Your task to perform on an android device: Search for Mexican restaurants on Maps Image 0: 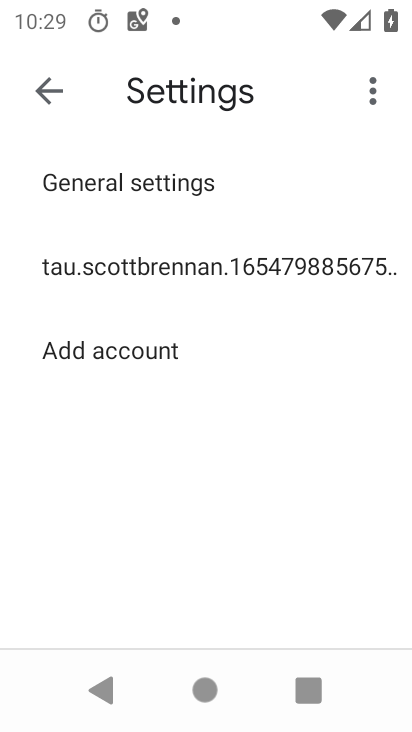
Step 0: press back button
Your task to perform on an android device: Search for Mexican restaurants on Maps Image 1: 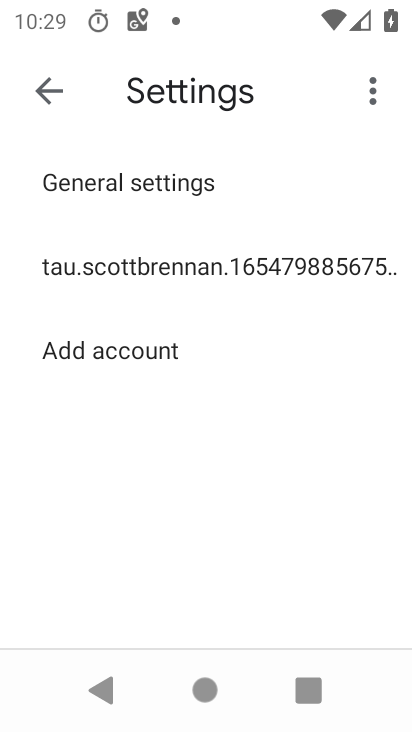
Step 1: press back button
Your task to perform on an android device: Search for Mexican restaurants on Maps Image 2: 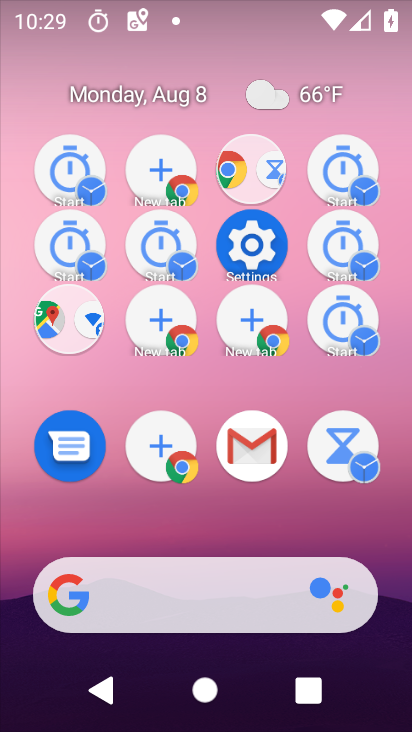
Step 2: drag from (283, 635) to (291, 251)
Your task to perform on an android device: Search for Mexican restaurants on Maps Image 3: 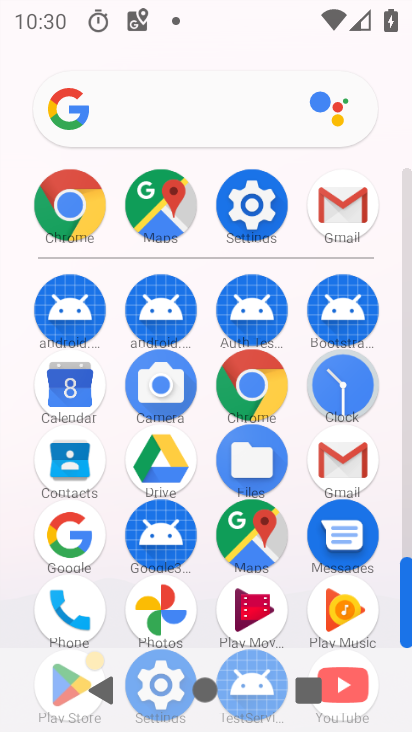
Step 3: click (247, 539)
Your task to perform on an android device: Search for Mexican restaurants on Maps Image 4: 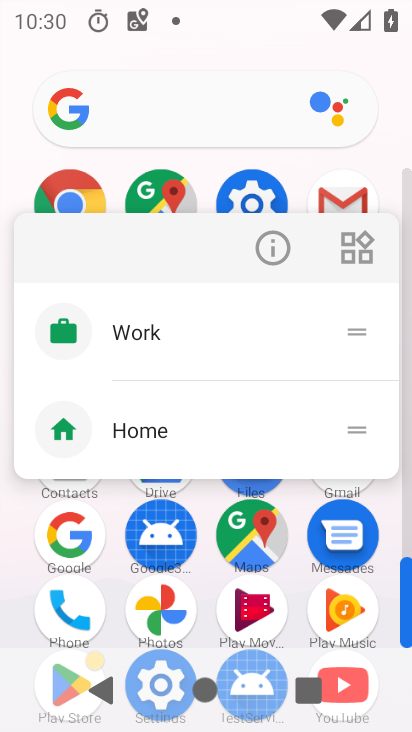
Step 4: click (151, 340)
Your task to perform on an android device: Search for Mexican restaurants on Maps Image 5: 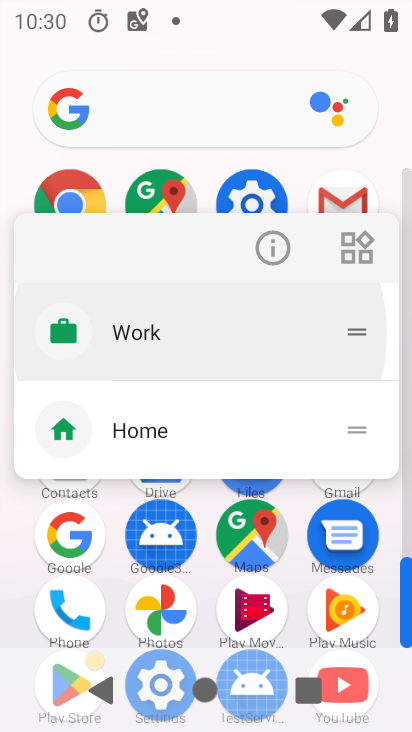
Step 5: click (149, 340)
Your task to perform on an android device: Search for Mexican restaurants on Maps Image 6: 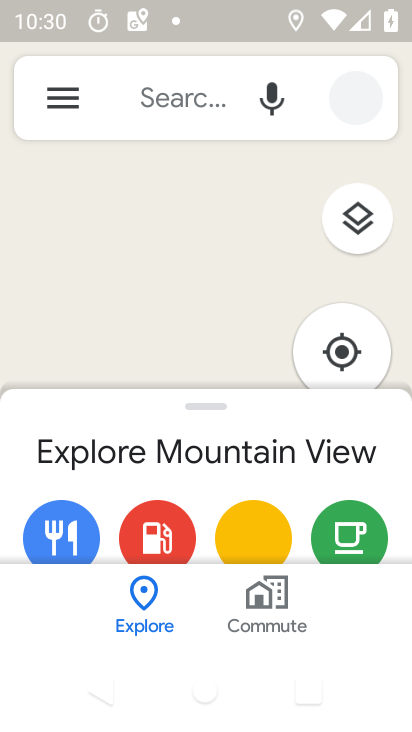
Step 6: click (155, 89)
Your task to perform on an android device: Search for Mexican restaurants on Maps Image 7: 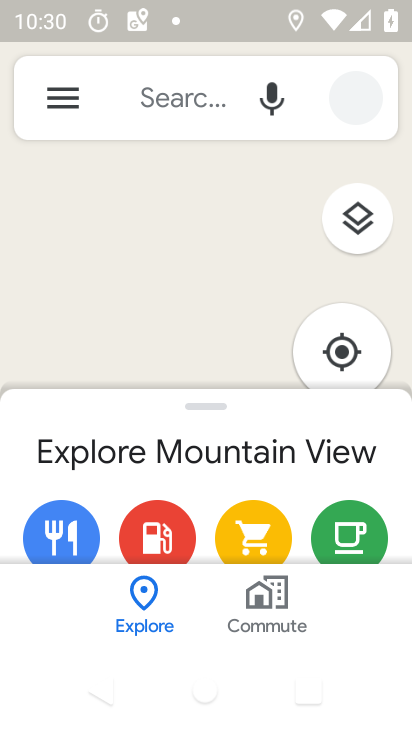
Step 7: click (152, 91)
Your task to perform on an android device: Search for Mexican restaurants on Maps Image 8: 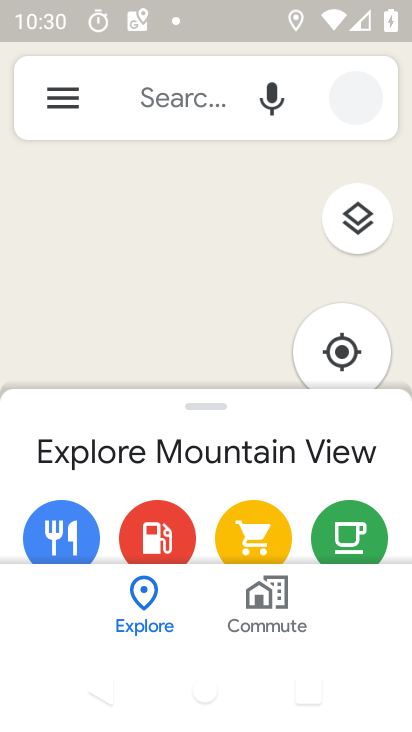
Step 8: click (152, 93)
Your task to perform on an android device: Search for Mexican restaurants on Maps Image 9: 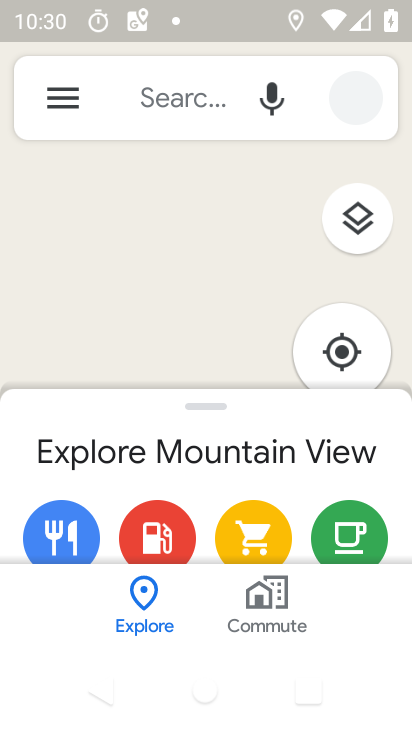
Step 9: click (152, 93)
Your task to perform on an android device: Search for Mexican restaurants on Maps Image 10: 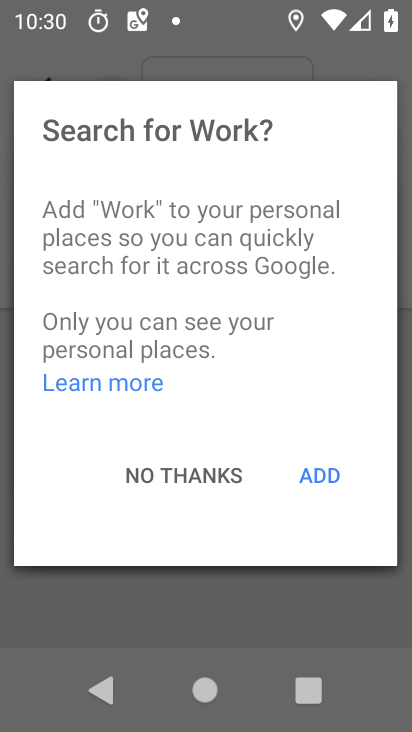
Step 10: click (201, 472)
Your task to perform on an android device: Search for Mexican restaurants on Maps Image 11: 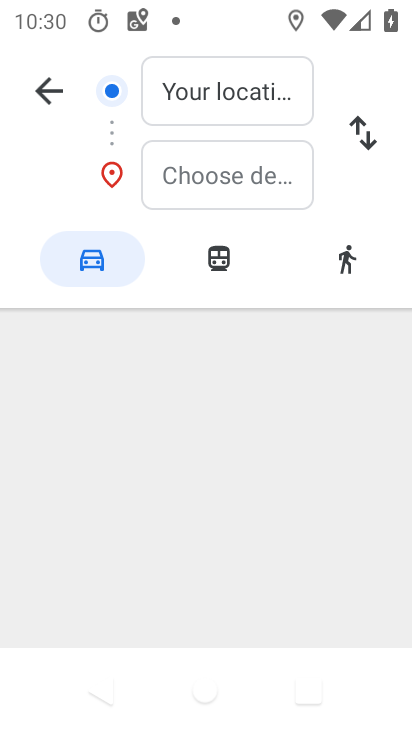
Step 11: click (198, 167)
Your task to perform on an android device: Search for Mexican restaurants on Maps Image 12: 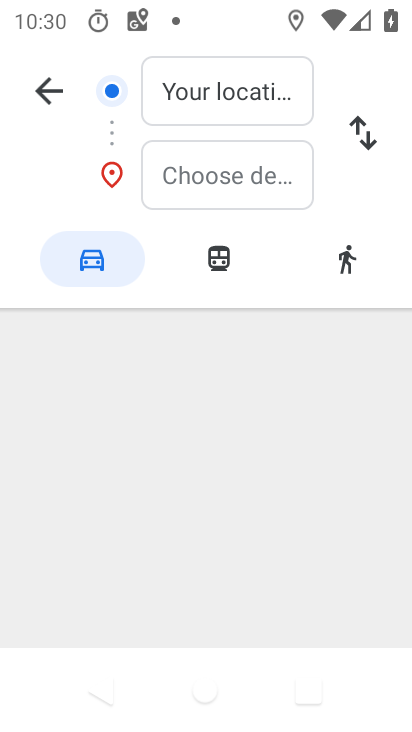
Step 12: click (187, 189)
Your task to perform on an android device: Search for Mexican restaurants on Maps Image 13: 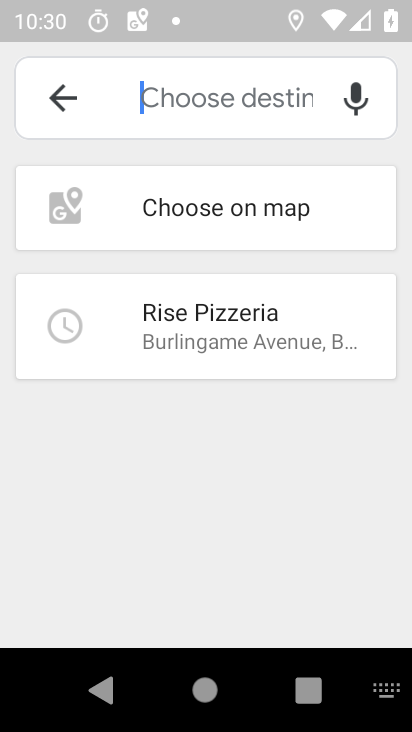
Step 13: type "mexican restaurants"
Your task to perform on an android device: Search for Mexican restaurants on Maps Image 14: 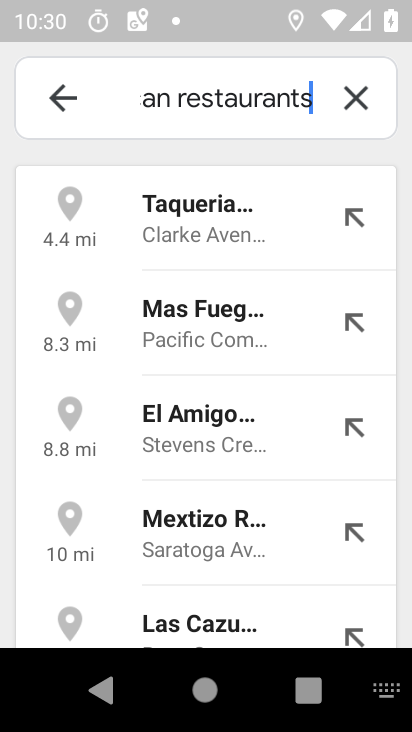
Step 14: click (216, 122)
Your task to perform on an android device: Search for Mexican restaurants on Maps Image 15: 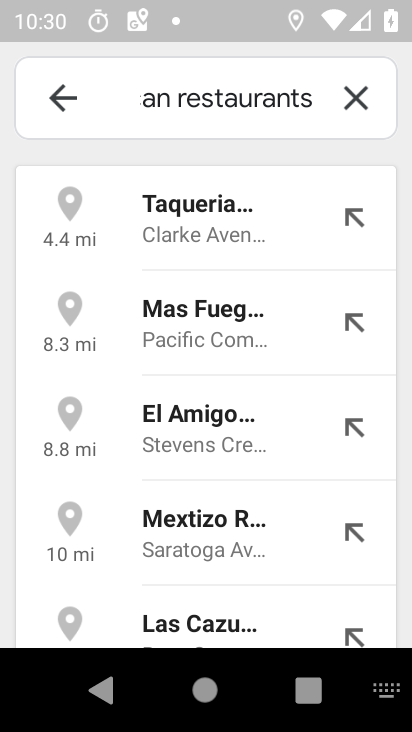
Step 15: click (215, 122)
Your task to perform on an android device: Search for Mexican restaurants on Maps Image 16: 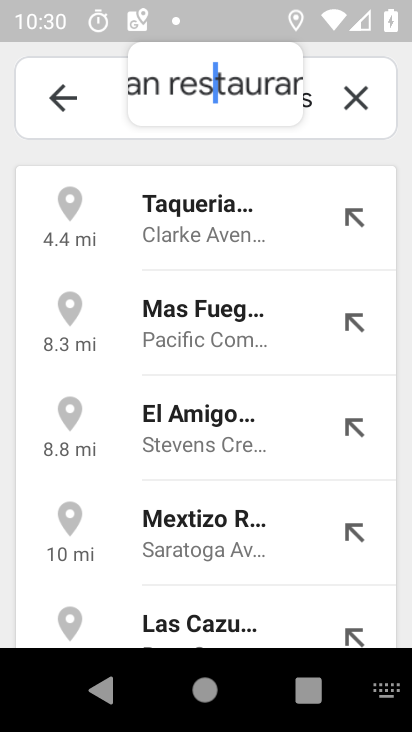
Step 16: click (215, 123)
Your task to perform on an android device: Search for Mexican restaurants on Maps Image 17: 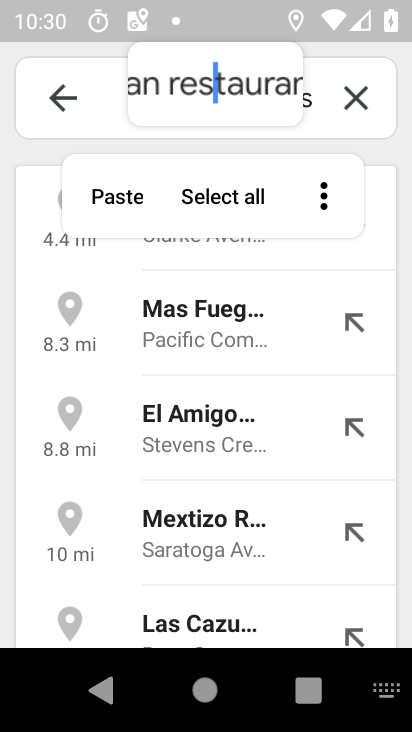
Step 17: click (215, 123)
Your task to perform on an android device: Search for Mexican restaurants on Maps Image 18: 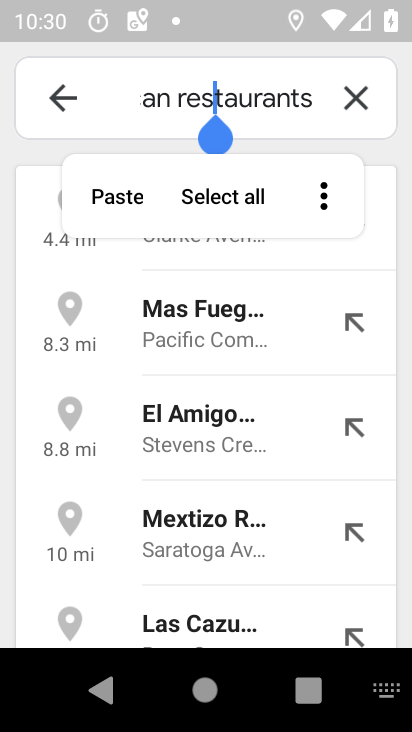
Step 18: click (299, 89)
Your task to perform on an android device: Search for Mexican restaurants on Maps Image 19: 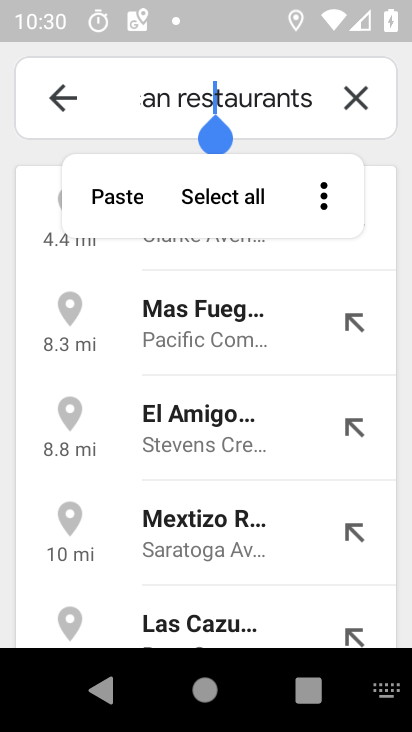
Step 19: click (299, 89)
Your task to perform on an android device: Search for Mexican restaurants on Maps Image 20: 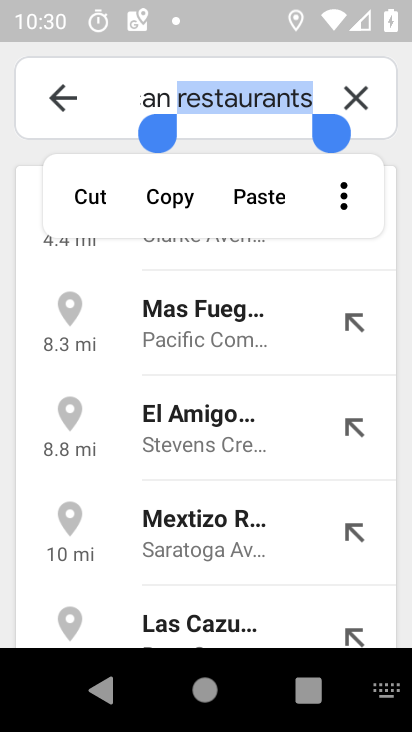
Step 20: drag from (207, 537) to (213, 247)
Your task to perform on an android device: Search for Mexican restaurants on Maps Image 21: 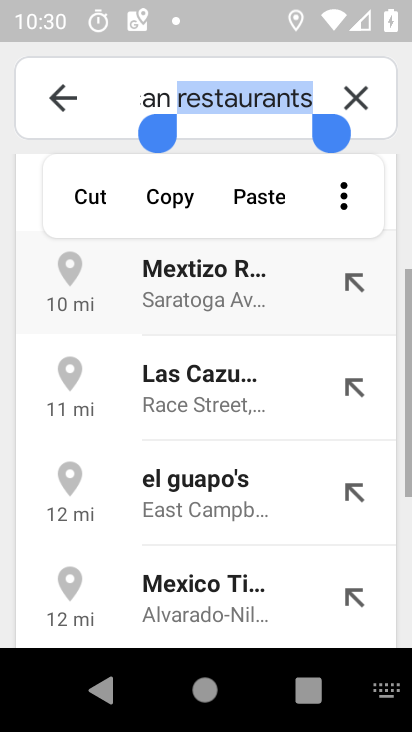
Step 21: drag from (192, 516) to (245, 286)
Your task to perform on an android device: Search for Mexican restaurants on Maps Image 22: 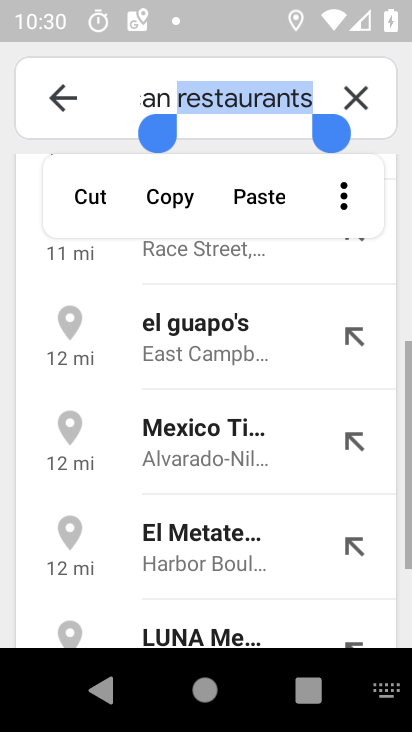
Step 22: drag from (223, 489) to (255, 203)
Your task to perform on an android device: Search for Mexican restaurants on Maps Image 23: 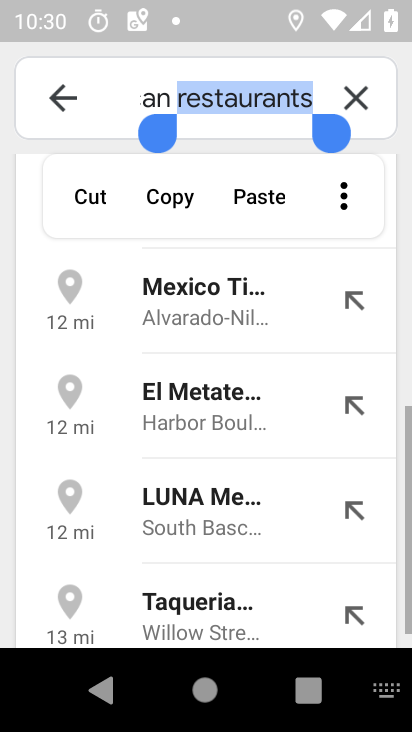
Step 23: drag from (225, 591) to (213, 282)
Your task to perform on an android device: Search for Mexican restaurants on Maps Image 24: 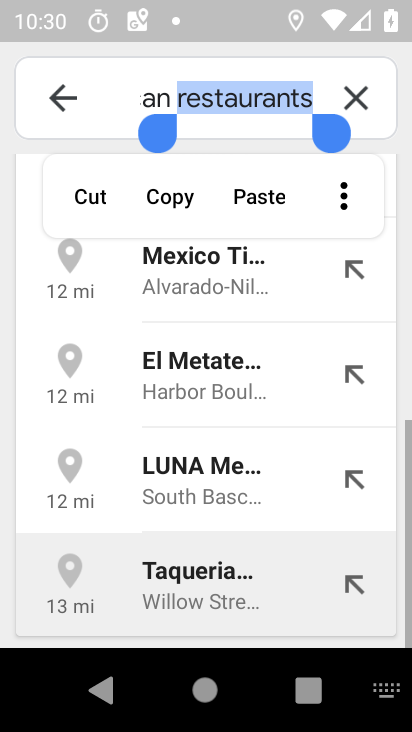
Step 24: drag from (228, 491) to (211, 243)
Your task to perform on an android device: Search for Mexican restaurants on Maps Image 25: 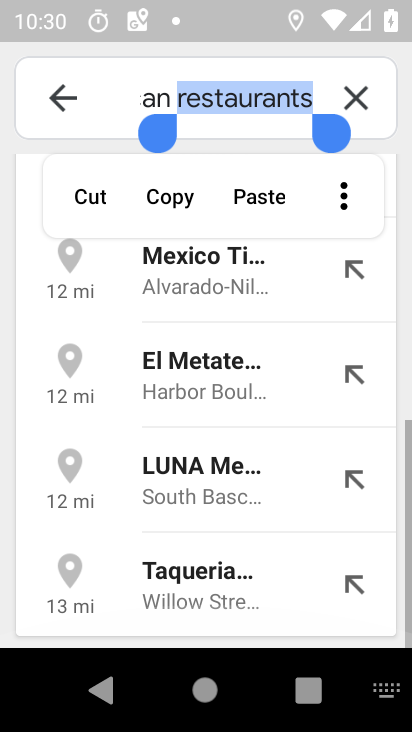
Step 25: drag from (252, 525) to (237, 332)
Your task to perform on an android device: Search for Mexican restaurants on Maps Image 26: 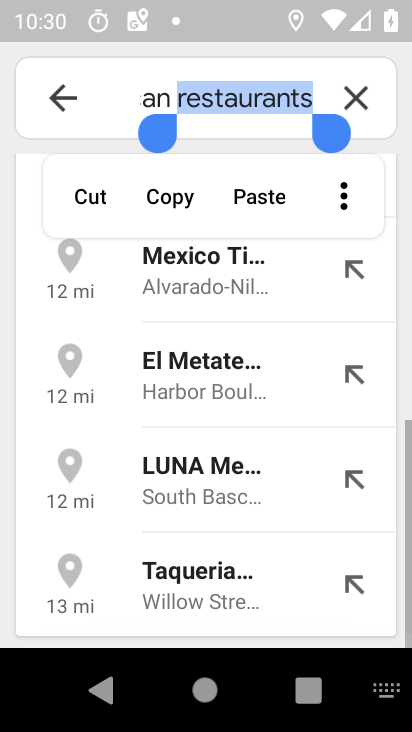
Step 26: drag from (213, 341) to (229, 713)
Your task to perform on an android device: Search for Mexican restaurants on Maps Image 27: 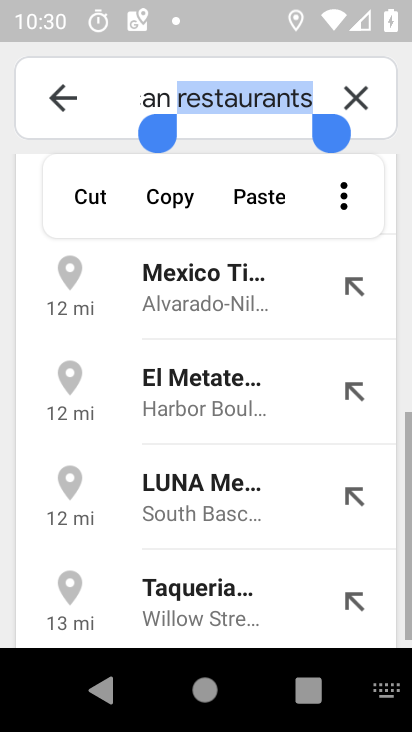
Step 27: drag from (218, 377) to (286, 591)
Your task to perform on an android device: Search for Mexican restaurants on Maps Image 28: 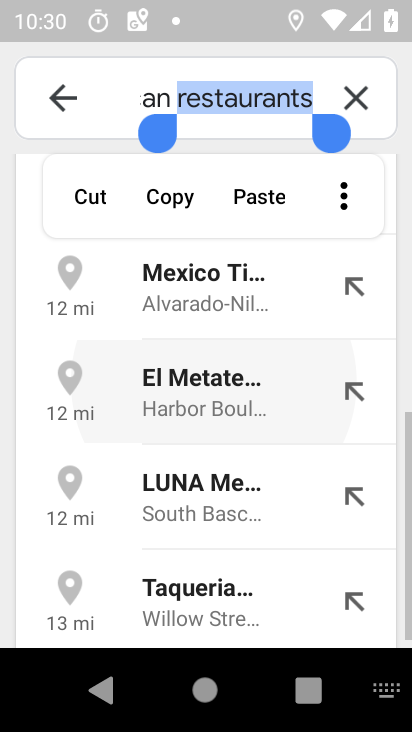
Step 28: drag from (183, 324) to (210, 632)
Your task to perform on an android device: Search for Mexican restaurants on Maps Image 29: 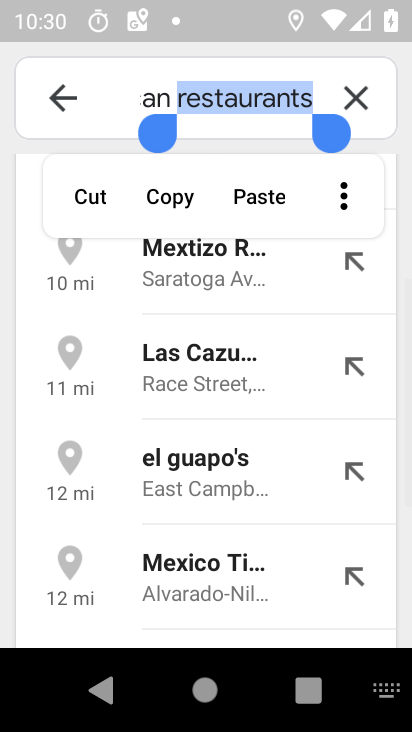
Step 29: click (264, 124)
Your task to perform on an android device: Search for Mexican restaurants on Maps Image 30: 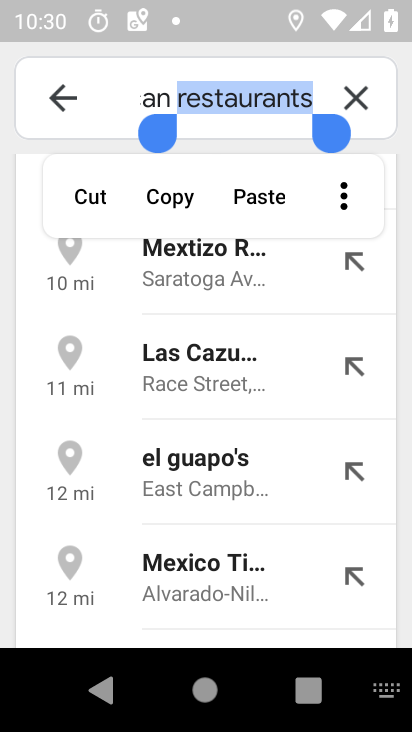
Step 30: click (264, 123)
Your task to perform on an android device: Search for Mexican restaurants on Maps Image 31: 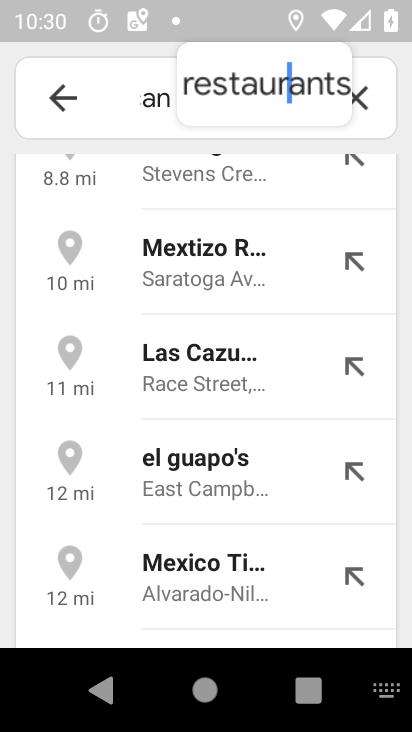
Step 31: click (264, 125)
Your task to perform on an android device: Search for Mexican restaurants on Maps Image 32: 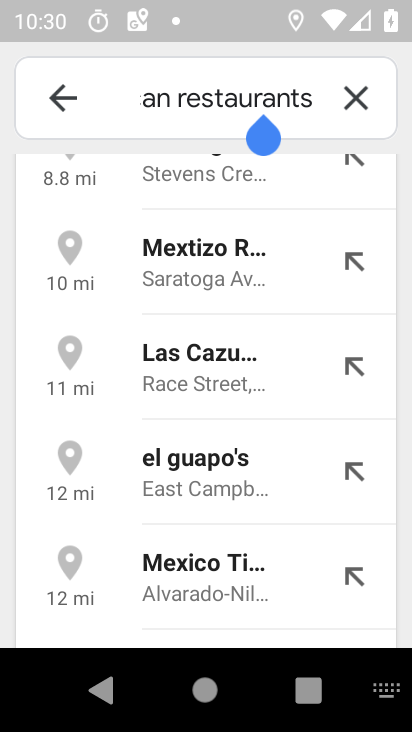
Step 32: click (302, 91)
Your task to perform on an android device: Search for Mexican restaurants on Maps Image 33: 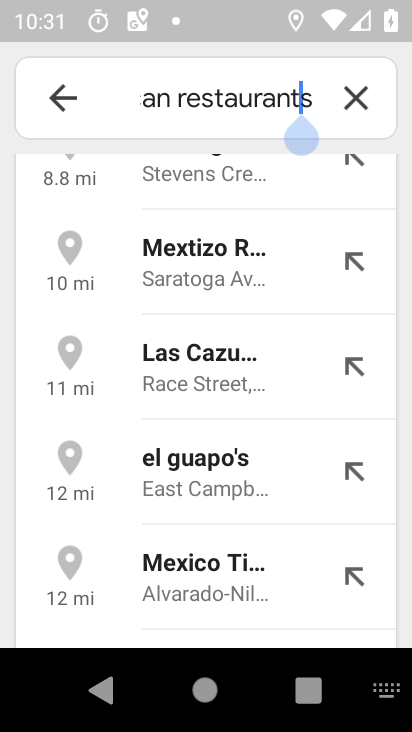
Step 33: click (351, 259)
Your task to perform on an android device: Search for Mexican restaurants on Maps Image 34: 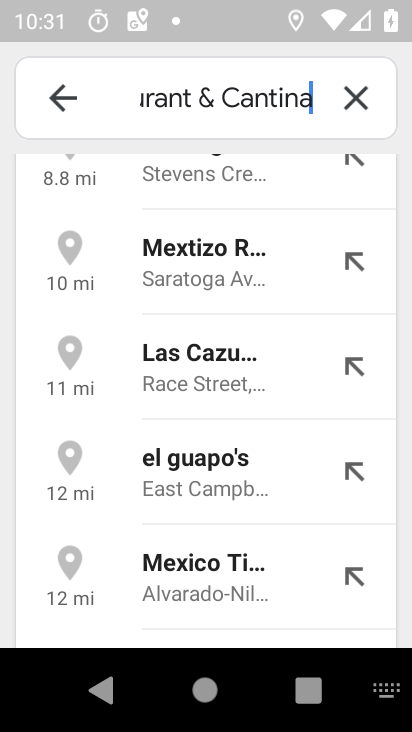
Step 34: click (351, 260)
Your task to perform on an android device: Search for Mexican restaurants on Maps Image 35: 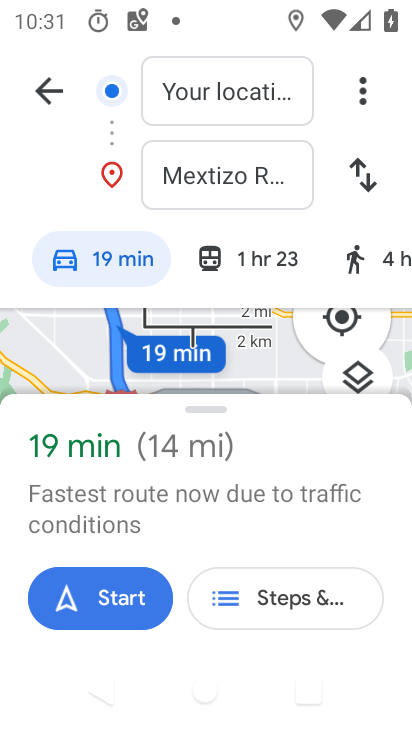
Step 35: task complete